Your task to perform on an android device: toggle notification dots Image 0: 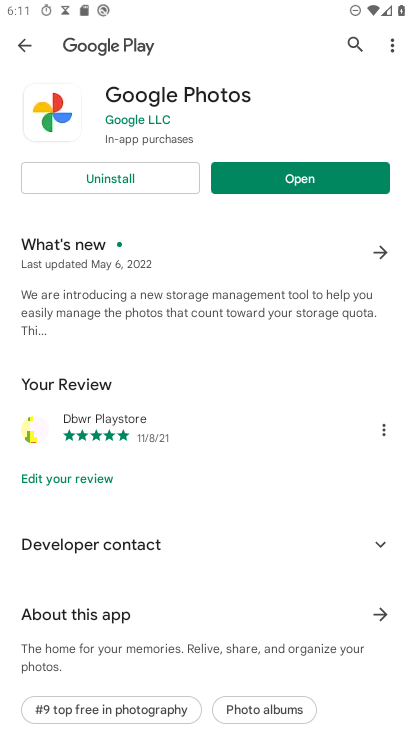
Step 0: press home button
Your task to perform on an android device: toggle notification dots Image 1: 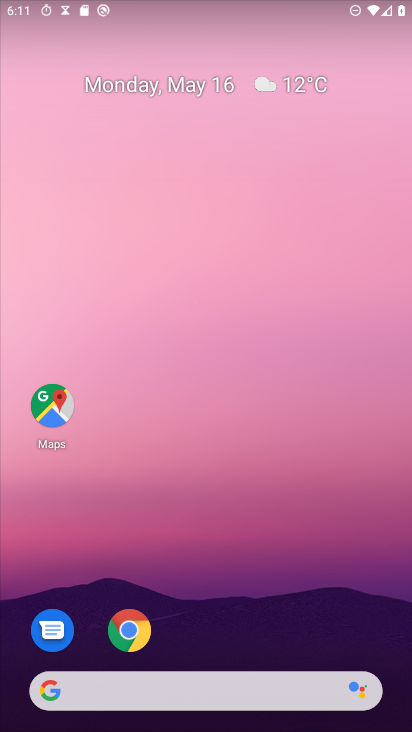
Step 1: task complete